Your task to perform on an android device: change keyboard looks Image 0: 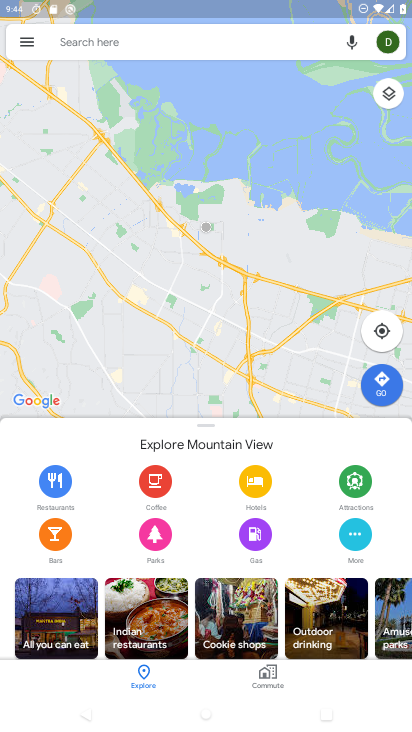
Step 0: press home button
Your task to perform on an android device: change keyboard looks Image 1: 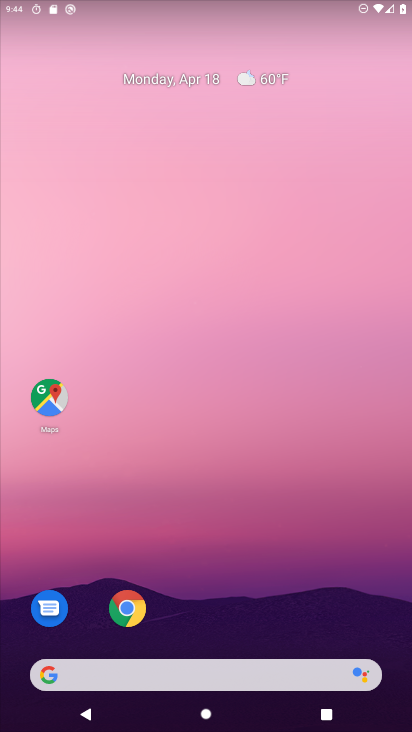
Step 1: drag from (362, 603) to (319, 103)
Your task to perform on an android device: change keyboard looks Image 2: 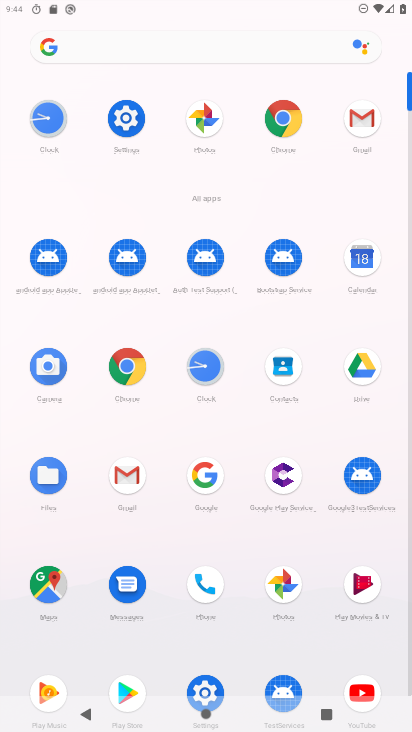
Step 2: click (135, 118)
Your task to perform on an android device: change keyboard looks Image 3: 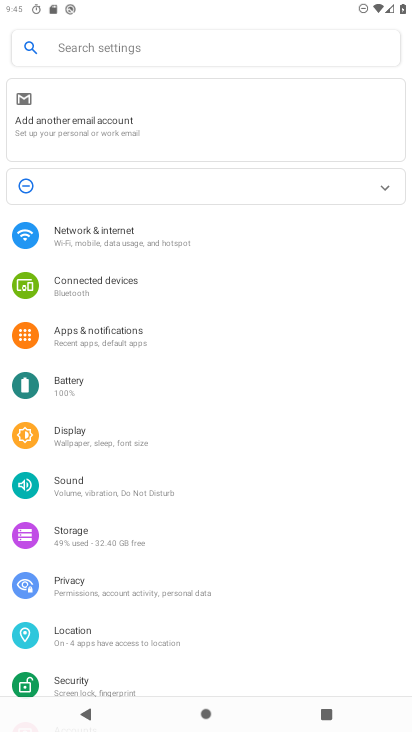
Step 3: drag from (249, 363) to (237, 230)
Your task to perform on an android device: change keyboard looks Image 4: 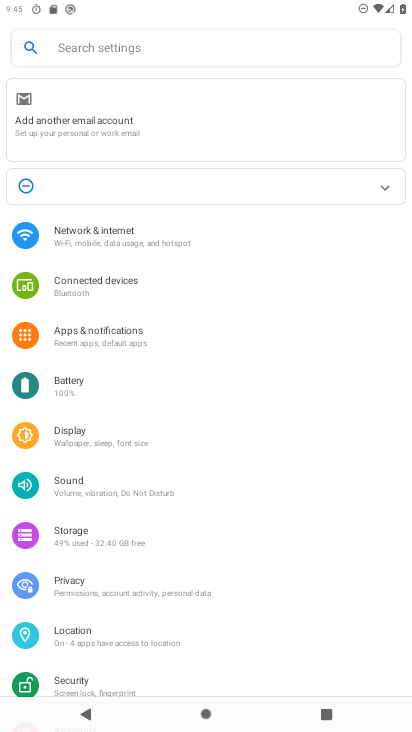
Step 4: drag from (333, 624) to (328, 222)
Your task to perform on an android device: change keyboard looks Image 5: 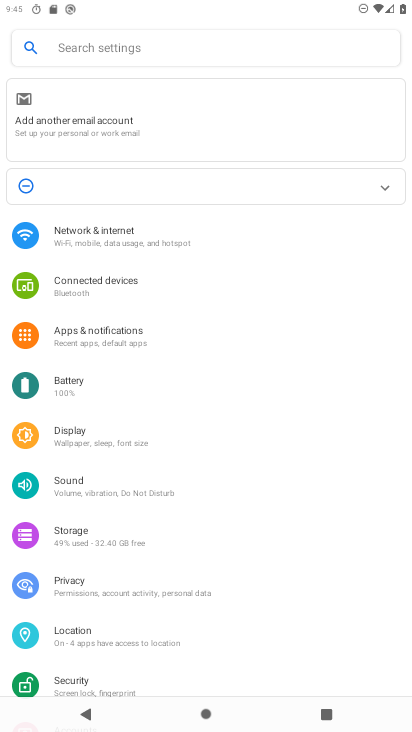
Step 5: drag from (309, 470) to (303, 271)
Your task to perform on an android device: change keyboard looks Image 6: 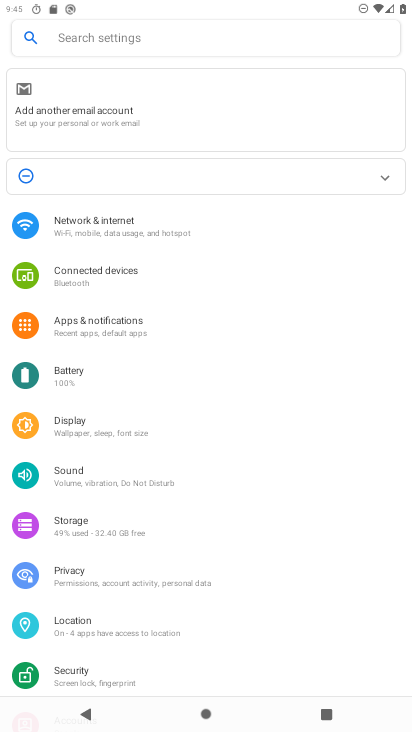
Step 6: drag from (294, 565) to (265, 249)
Your task to perform on an android device: change keyboard looks Image 7: 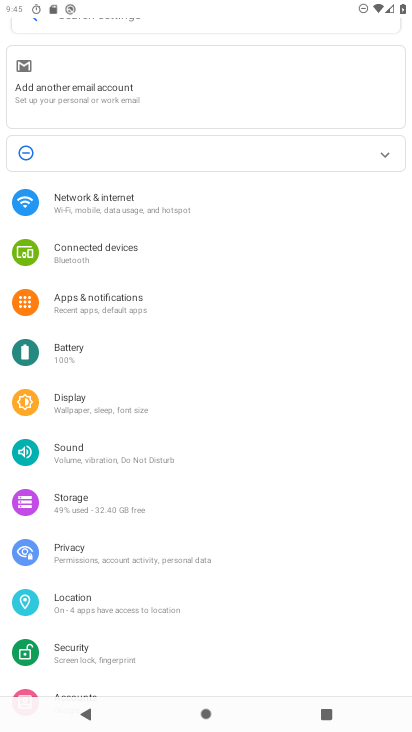
Step 7: drag from (357, 550) to (345, 188)
Your task to perform on an android device: change keyboard looks Image 8: 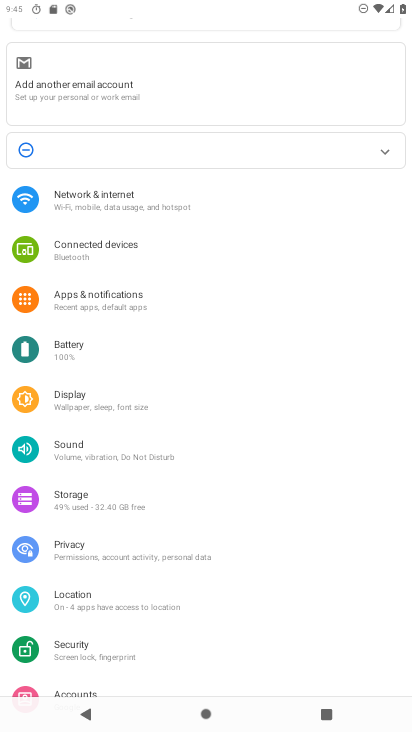
Step 8: drag from (342, 591) to (278, 227)
Your task to perform on an android device: change keyboard looks Image 9: 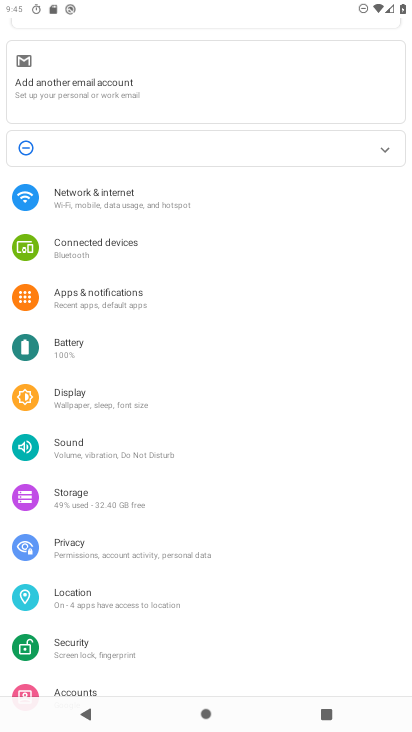
Step 9: drag from (308, 499) to (303, 166)
Your task to perform on an android device: change keyboard looks Image 10: 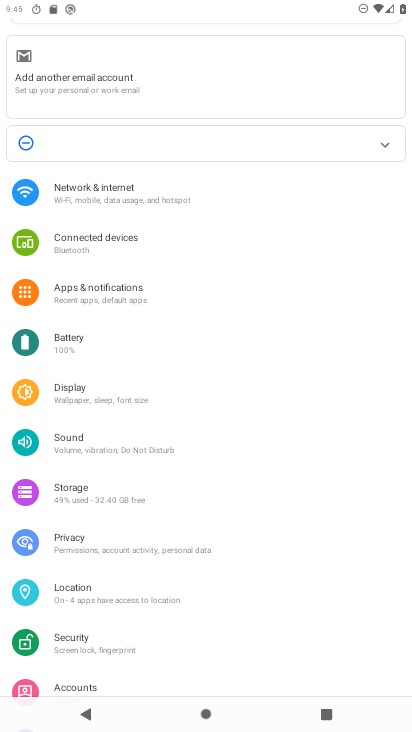
Step 10: drag from (346, 657) to (329, 265)
Your task to perform on an android device: change keyboard looks Image 11: 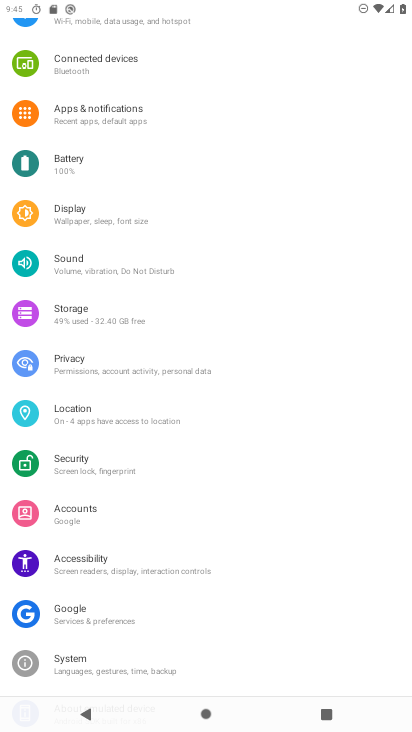
Step 11: click (56, 660)
Your task to perform on an android device: change keyboard looks Image 12: 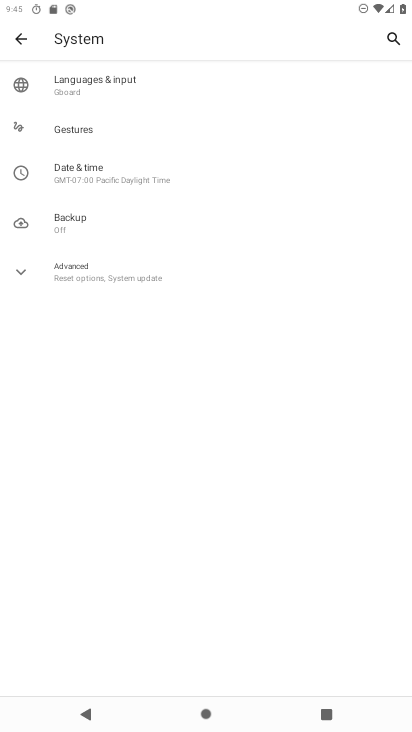
Step 12: click (68, 80)
Your task to perform on an android device: change keyboard looks Image 13: 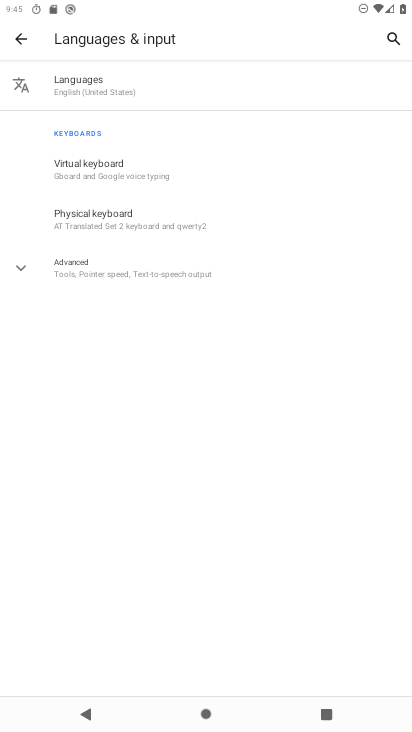
Step 13: click (76, 165)
Your task to perform on an android device: change keyboard looks Image 14: 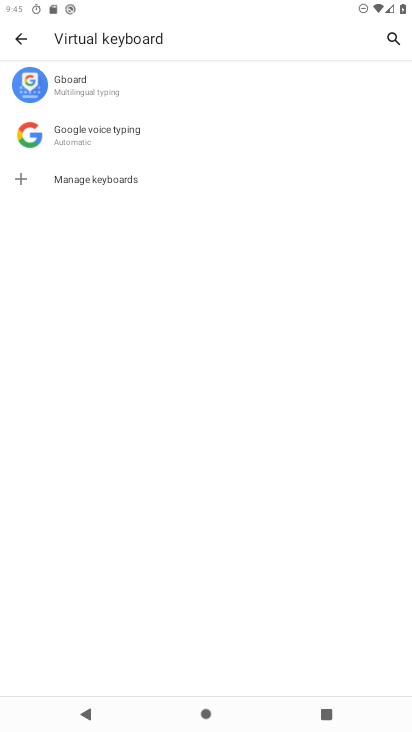
Step 14: click (53, 85)
Your task to perform on an android device: change keyboard looks Image 15: 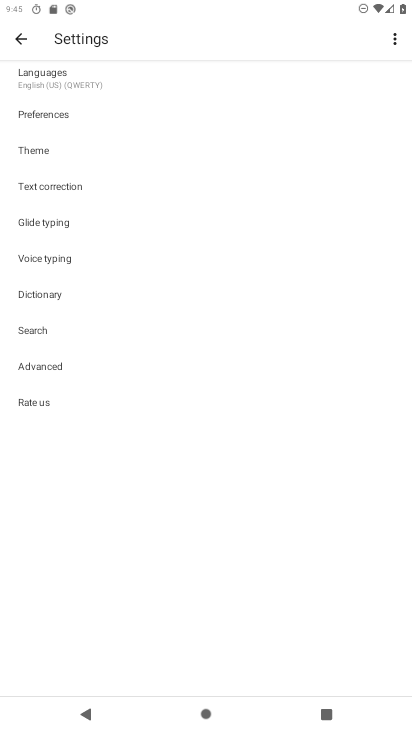
Step 15: click (45, 151)
Your task to perform on an android device: change keyboard looks Image 16: 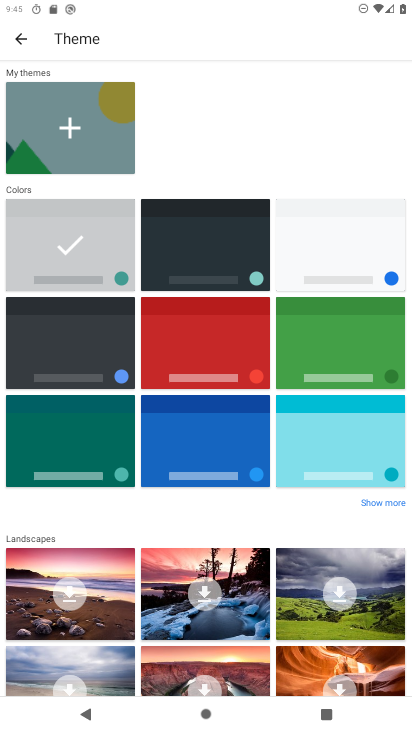
Step 16: click (77, 361)
Your task to perform on an android device: change keyboard looks Image 17: 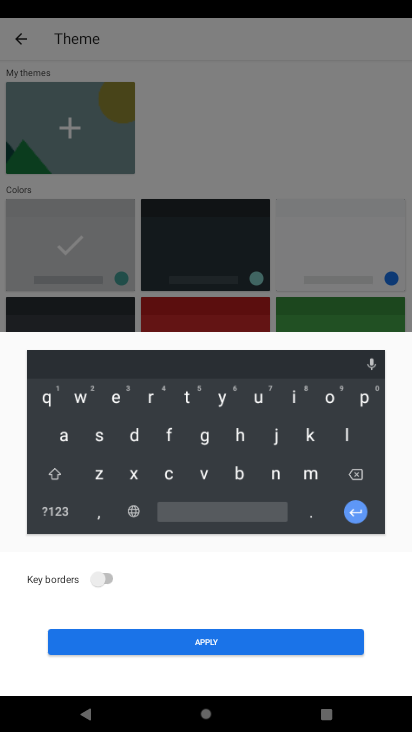
Step 17: click (108, 573)
Your task to perform on an android device: change keyboard looks Image 18: 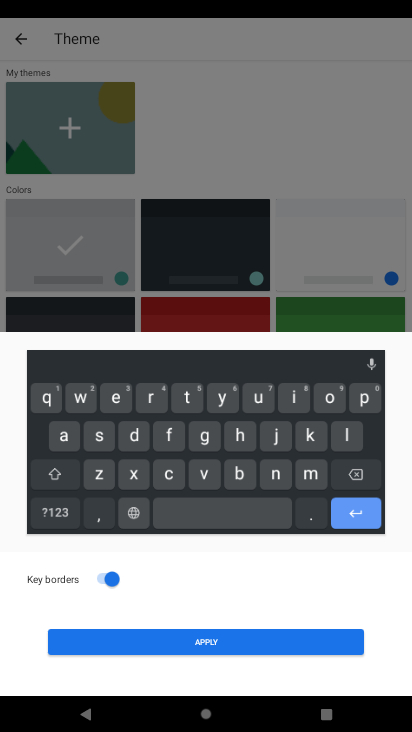
Step 18: click (215, 639)
Your task to perform on an android device: change keyboard looks Image 19: 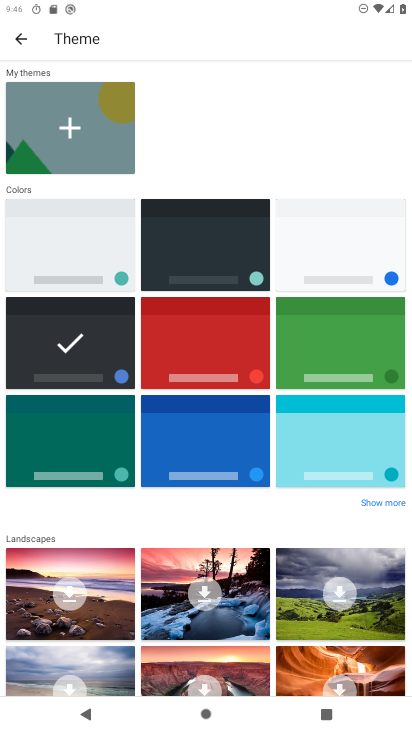
Step 19: task complete